Your task to perform on an android device: change text size in settings app Image 0: 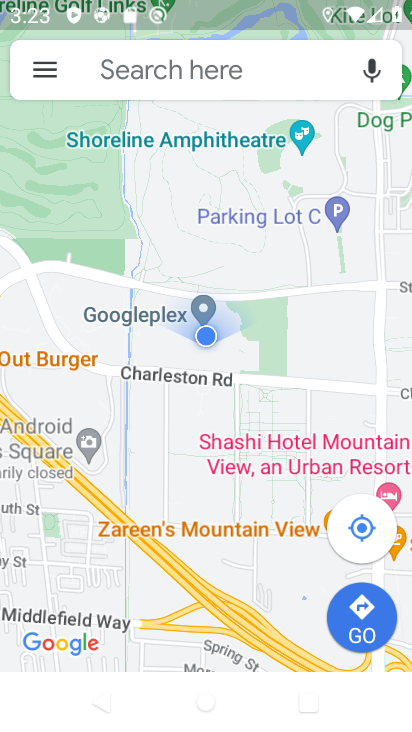
Step 0: press home button
Your task to perform on an android device: change text size in settings app Image 1: 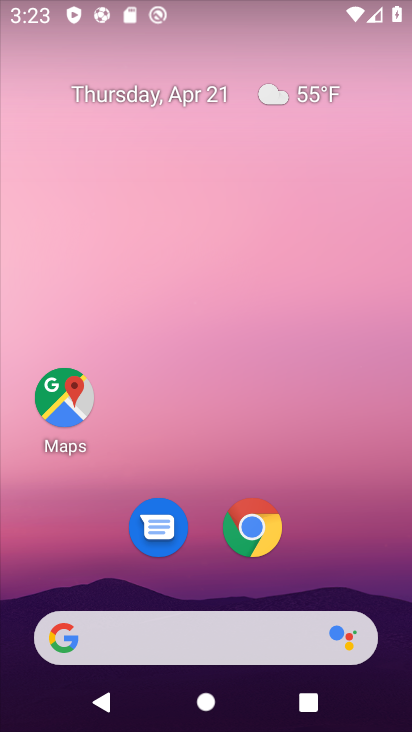
Step 1: drag from (370, 561) to (354, 0)
Your task to perform on an android device: change text size in settings app Image 2: 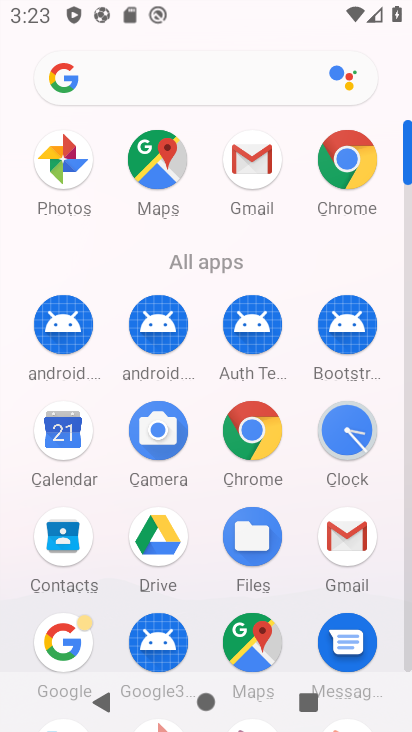
Step 2: click (408, 639)
Your task to perform on an android device: change text size in settings app Image 3: 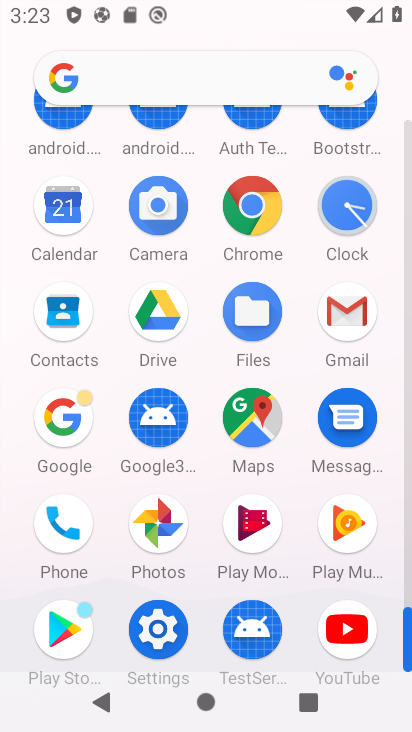
Step 3: click (164, 626)
Your task to perform on an android device: change text size in settings app Image 4: 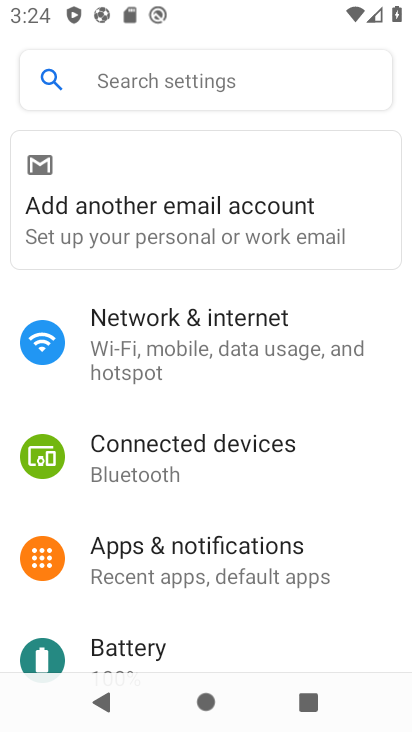
Step 4: drag from (164, 626) to (181, 155)
Your task to perform on an android device: change text size in settings app Image 5: 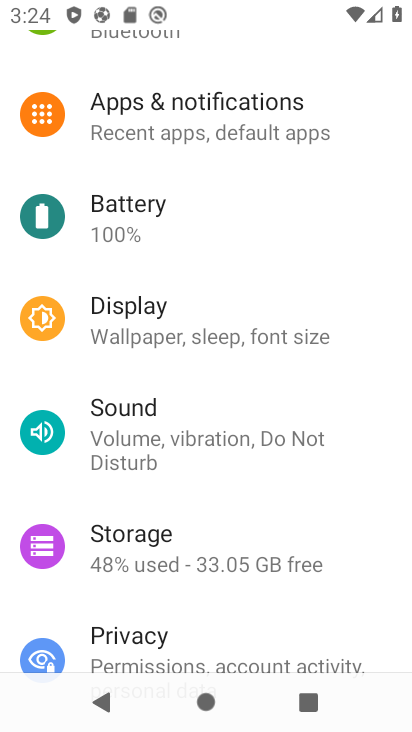
Step 5: click (240, 356)
Your task to perform on an android device: change text size in settings app Image 6: 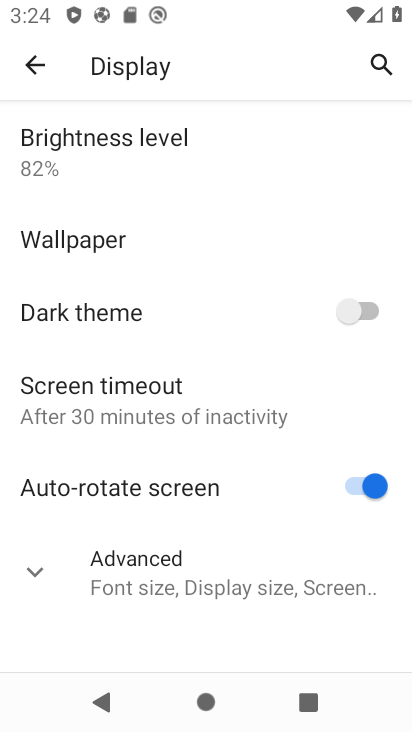
Step 6: click (253, 593)
Your task to perform on an android device: change text size in settings app Image 7: 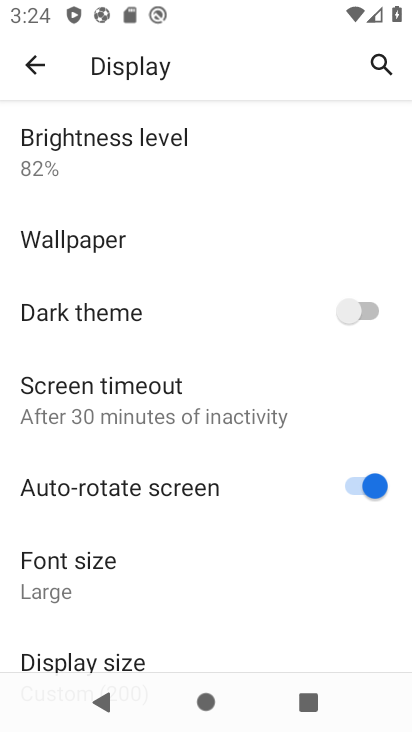
Step 7: click (249, 585)
Your task to perform on an android device: change text size in settings app Image 8: 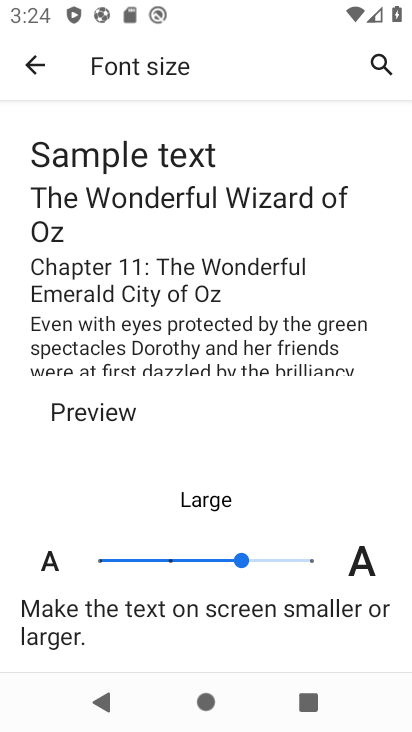
Step 8: click (180, 559)
Your task to perform on an android device: change text size in settings app Image 9: 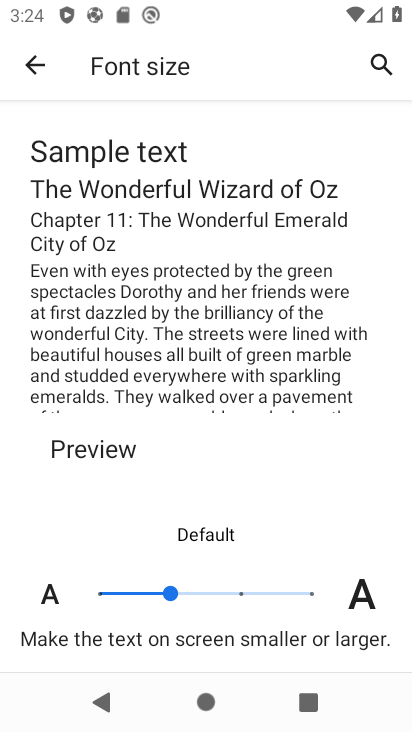
Step 9: task complete